Your task to perform on an android device: change notifications settings Image 0: 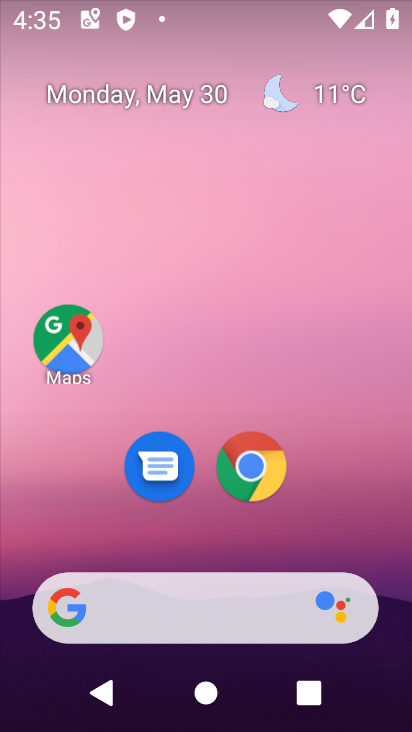
Step 0: drag from (324, 526) to (339, 122)
Your task to perform on an android device: change notifications settings Image 1: 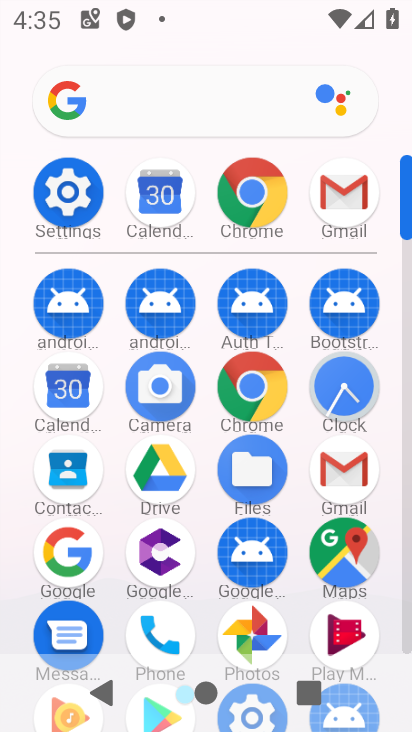
Step 1: click (67, 186)
Your task to perform on an android device: change notifications settings Image 2: 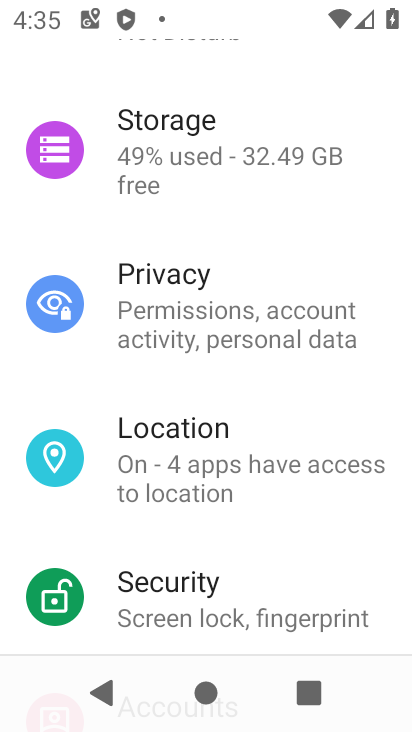
Step 2: drag from (267, 222) to (327, 696)
Your task to perform on an android device: change notifications settings Image 3: 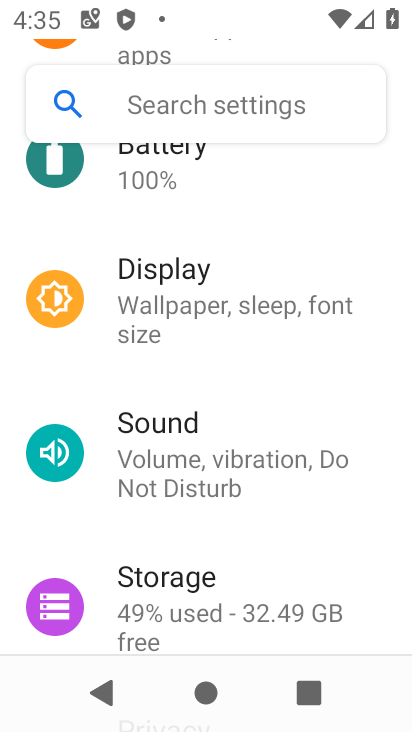
Step 3: drag from (233, 265) to (249, 654)
Your task to perform on an android device: change notifications settings Image 4: 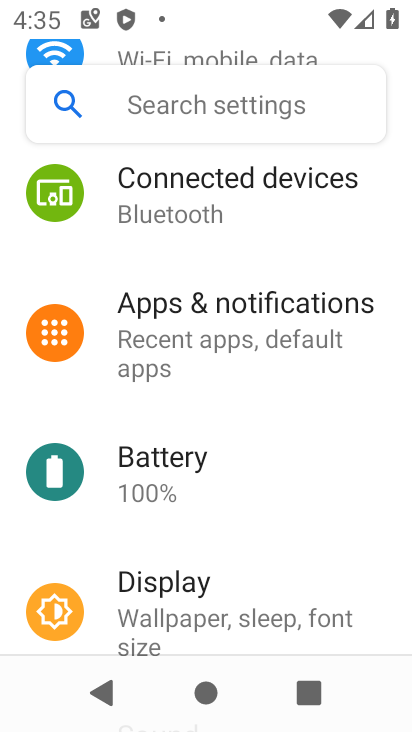
Step 4: drag from (231, 200) to (252, 610)
Your task to perform on an android device: change notifications settings Image 5: 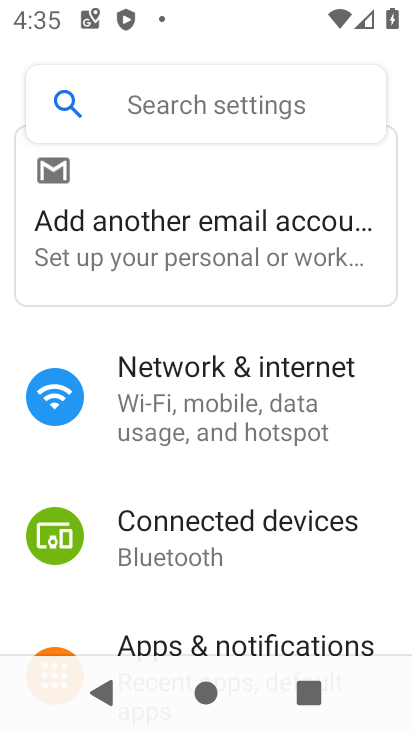
Step 5: drag from (275, 586) to (304, 287)
Your task to perform on an android device: change notifications settings Image 6: 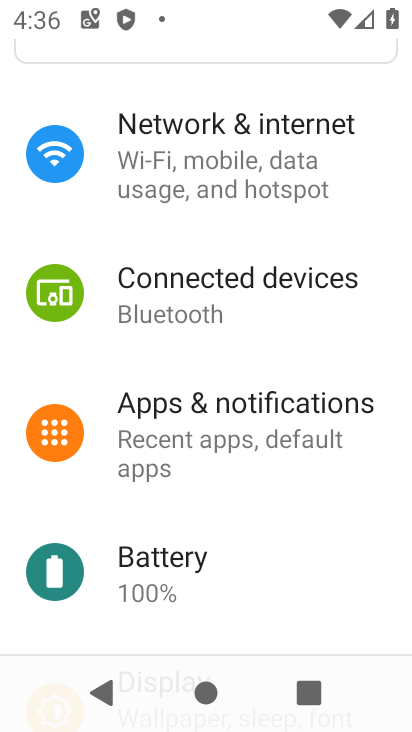
Step 6: click (233, 399)
Your task to perform on an android device: change notifications settings Image 7: 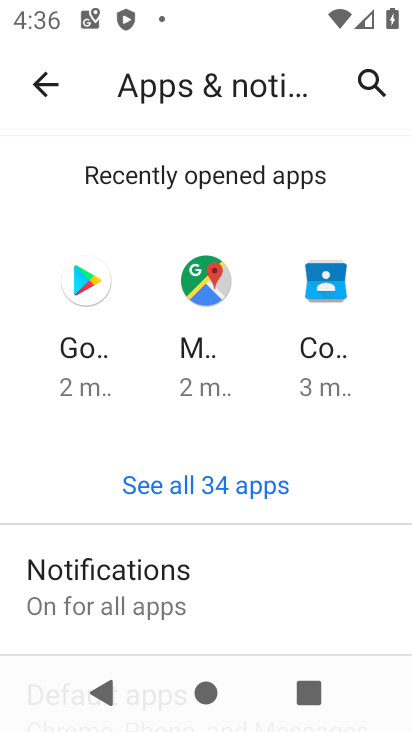
Step 7: click (161, 566)
Your task to perform on an android device: change notifications settings Image 8: 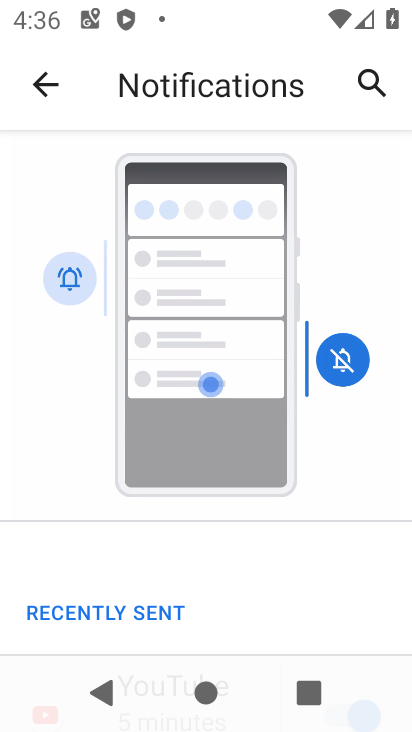
Step 8: drag from (320, 592) to (260, 58)
Your task to perform on an android device: change notifications settings Image 9: 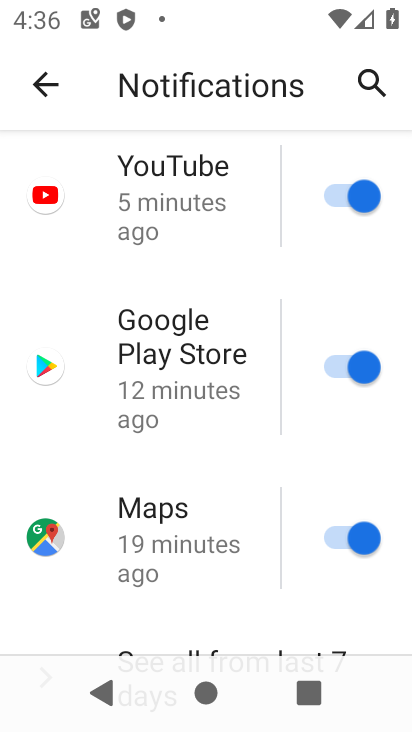
Step 9: drag from (247, 582) to (279, 87)
Your task to perform on an android device: change notifications settings Image 10: 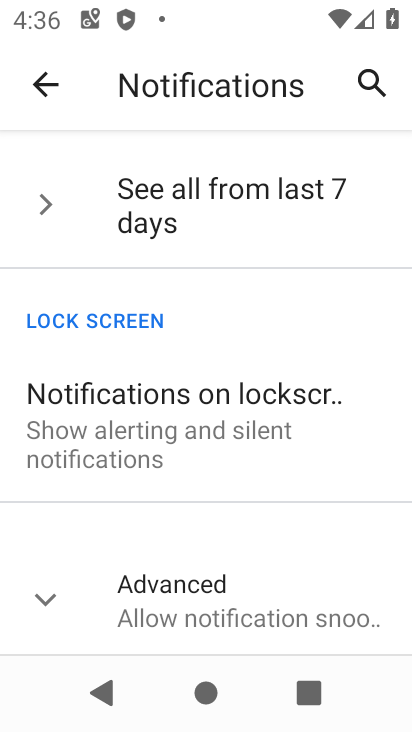
Step 10: click (194, 625)
Your task to perform on an android device: change notifications settings Image 11: 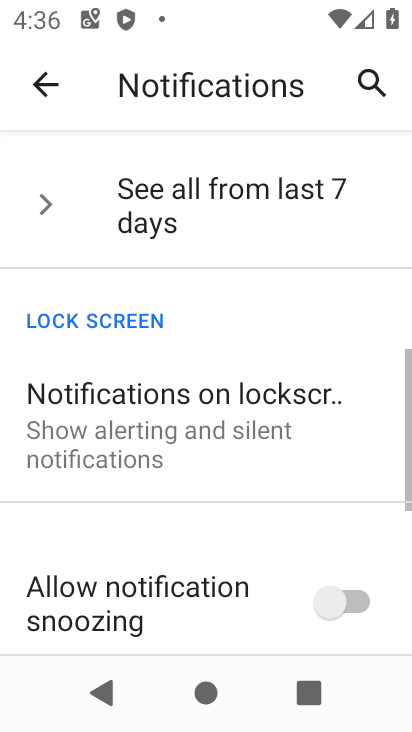
Step 11: drag from (275, 554) to (278, 90)
Your task to perform on an android device: change notifications settings Image 12: 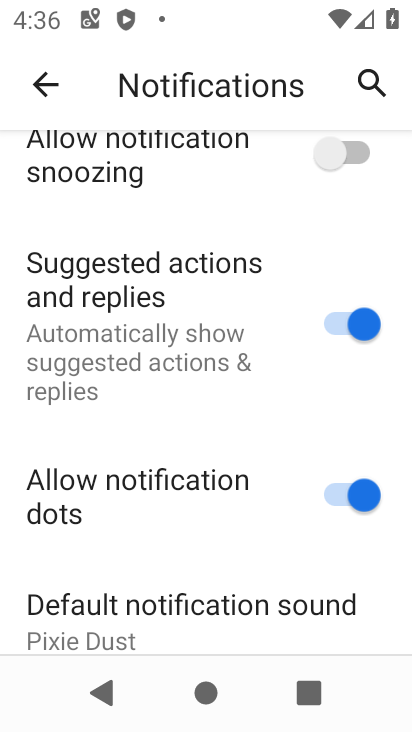
Step 12: drag from (230, 558) to (189, 612)
Your task to perform on an android device: change notifications settings Image 13: 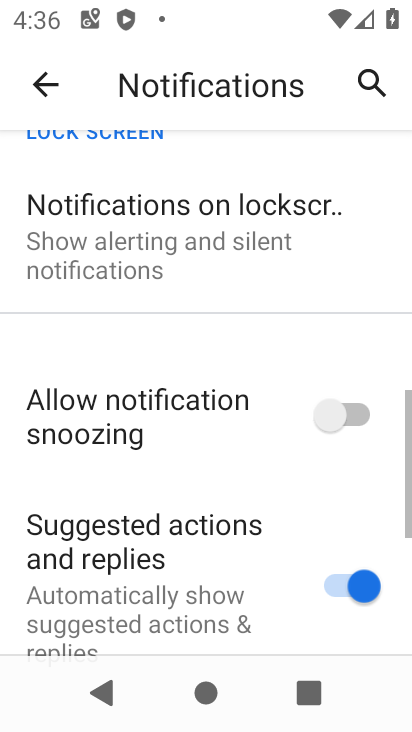
Step 13: drag from (180, 228) to (259, 71)
Your task to perform on an android device: change notifications settings Image 14: 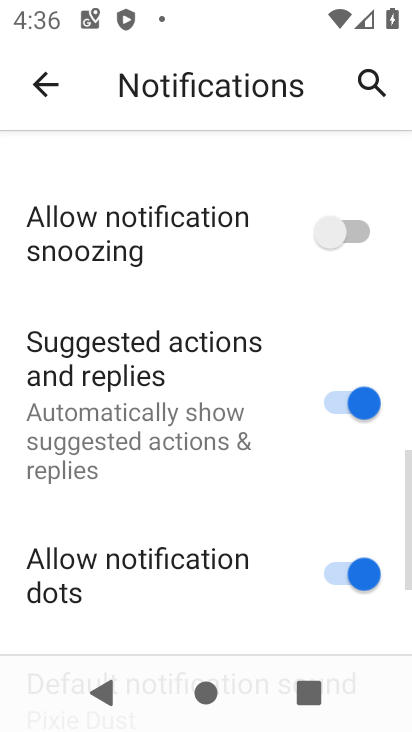
Step 14: drag from (184, 549) to (258, 128)
Your task to perform on an android device: change notifications settings Image 15: 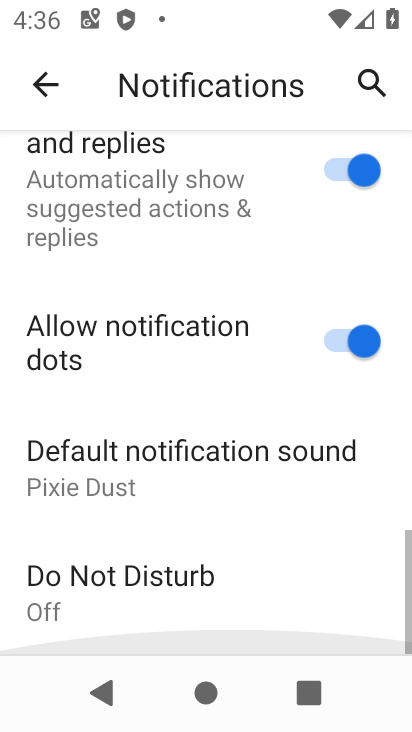
Step 15: drag from (250, 190) to (247, 582)
Your task to perform on an android device: change notifications settings Image 16: 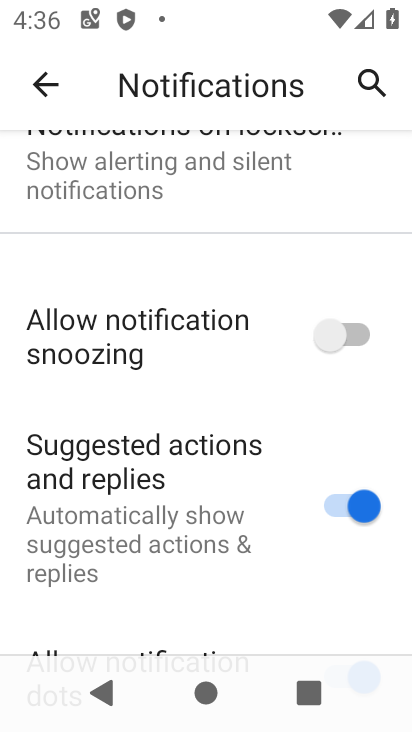
Step 16: click (342, 323)
Your task to perform on an android device: change notifications settings Image 17: 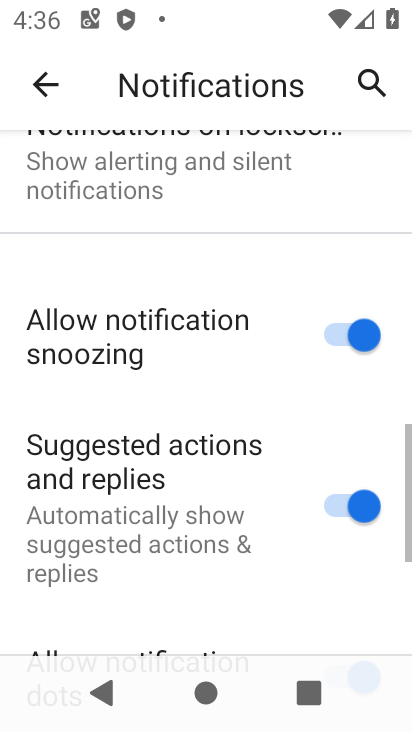
Step 17: task complete